Your task to perform on an android device: turn on javascript in the chrome app Image 0: 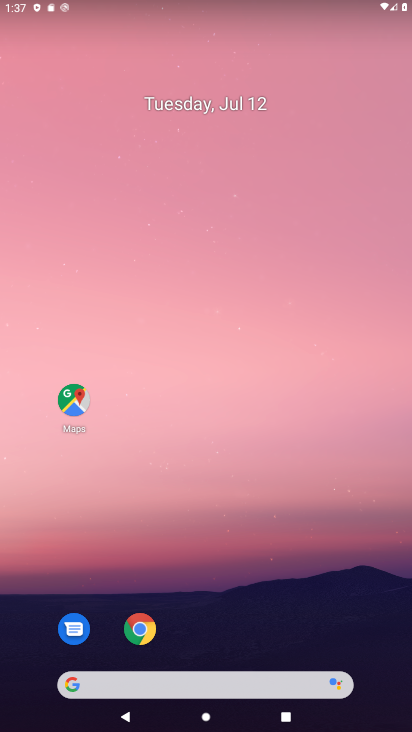
Step 0: click (144, 624)
Your task to perform on an android device: turn on javascript in the chrome app Image 1: 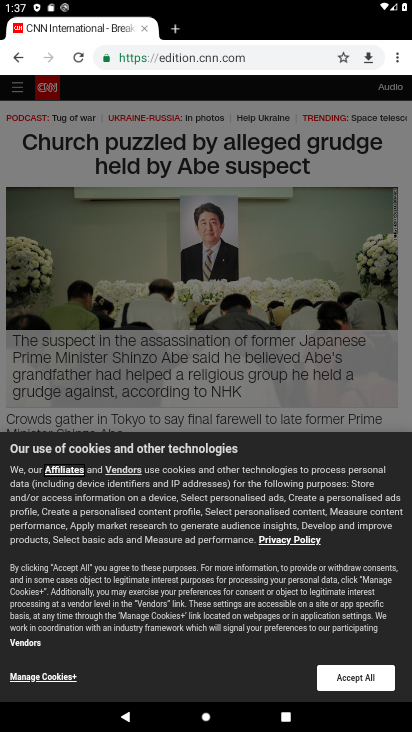
Step 1: click (394, 58)
Your task to perform on an android device: turn on javascript in the chrome app Image 2: 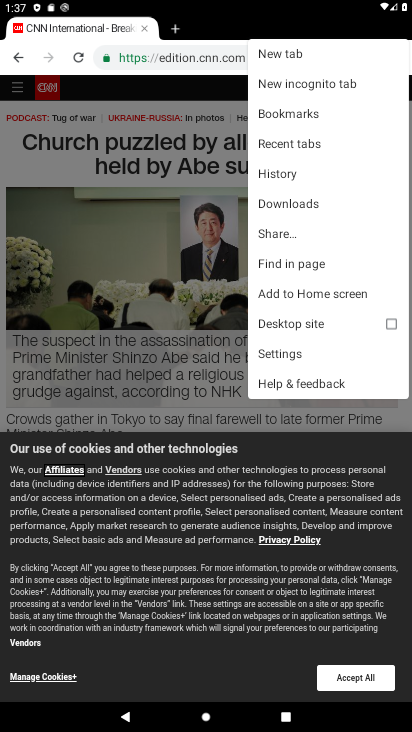
Step 2: click (295, 353)
Your task to perform on an android device: turn on javascript in the chrome app Image 3: 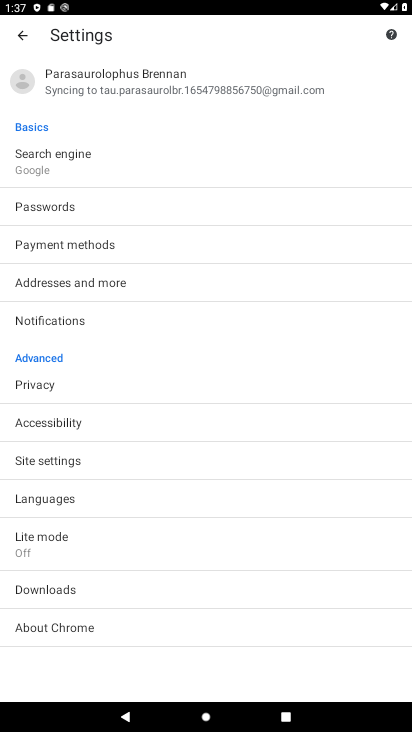
Step 3: click (120, 459)
Your task to perform on an android device: turn on javascript in the chrome app Image 4: 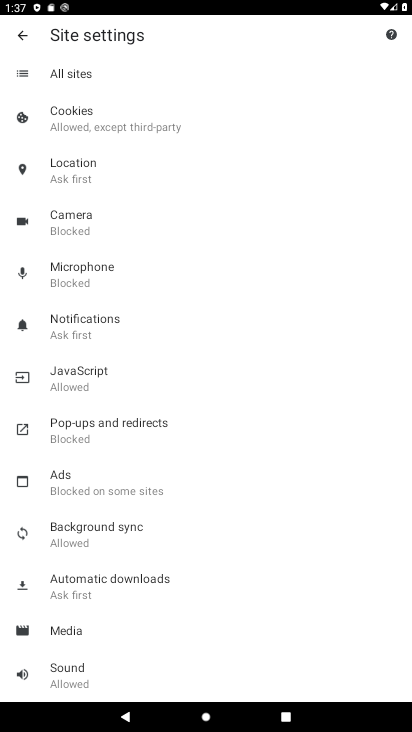
Step 4: click (139, 377)
Your task to perform on an android device: turn on javascript in the chrome app Image 5: 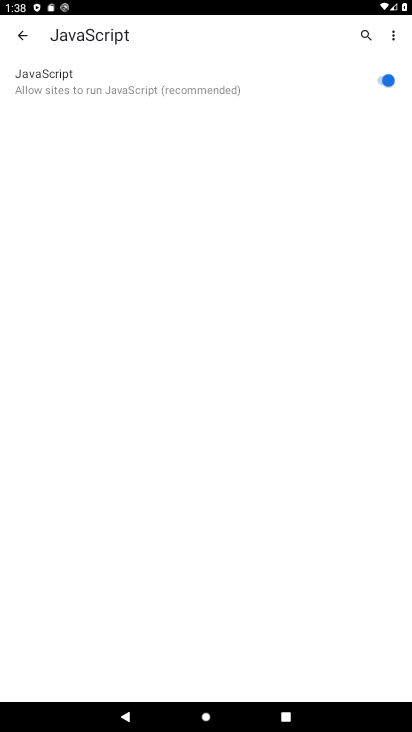
Step 5: task complete